Your task to perform on an android device: turn off translation in the chrome app Image 0: 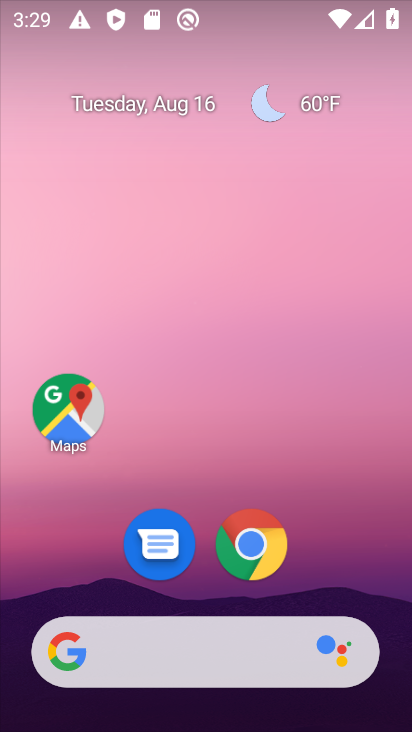
Step 0: drag from (398, 570) to (221, 20)
Your task to perform on an android device: turn off translation in the chrome app Image 1: 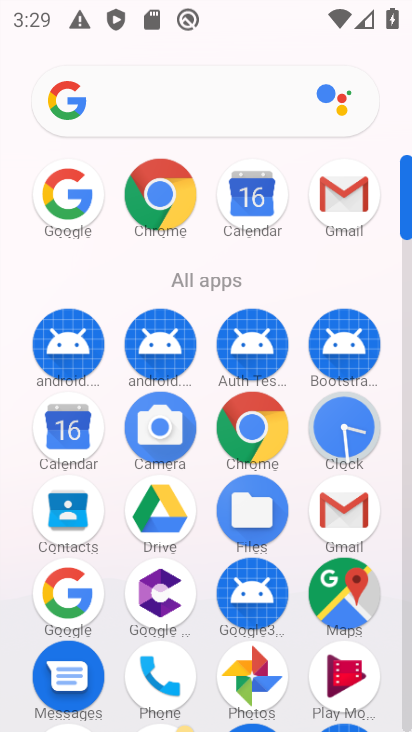
Step 1: click (160, 211)
Your task to perform on an android device: turn off translation in the chrome app Image 2: 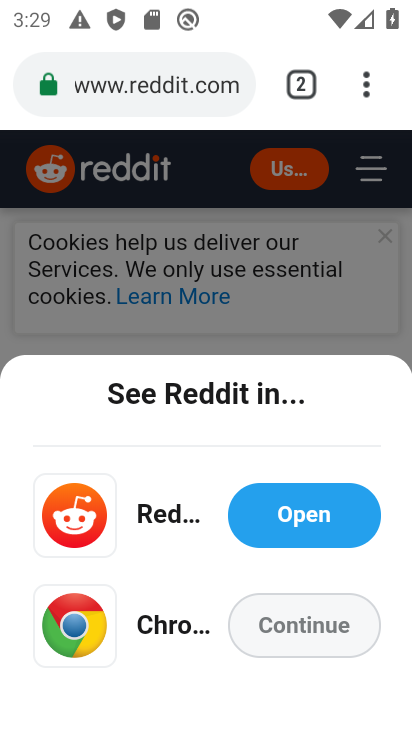
Step 2: click (364, 85)
Your task to perform on an android device: turn off translation in the chrome app Image 3: 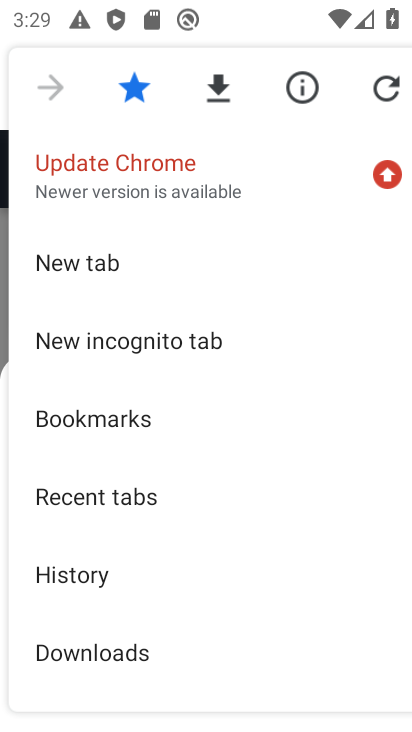
Step 3: drag from (155, 618) to (179, 181)
Your task to perform on an android device: turn off translation in the chrome app Image 4: 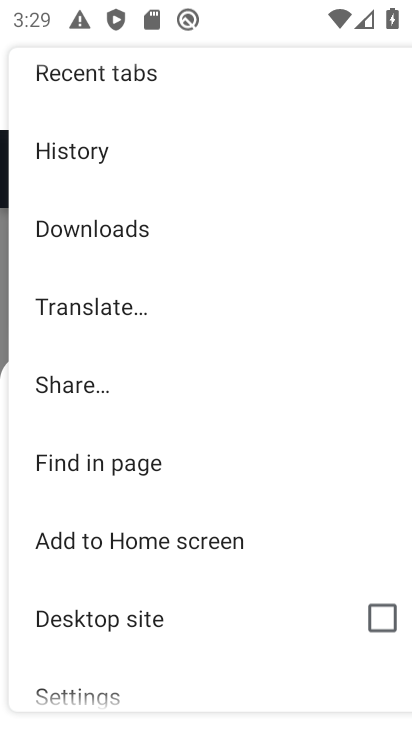
Step 4: drag from (100, 658) to (147, 102)
Your task to perform on an android device: turn off translation in the chrome app Image 5: 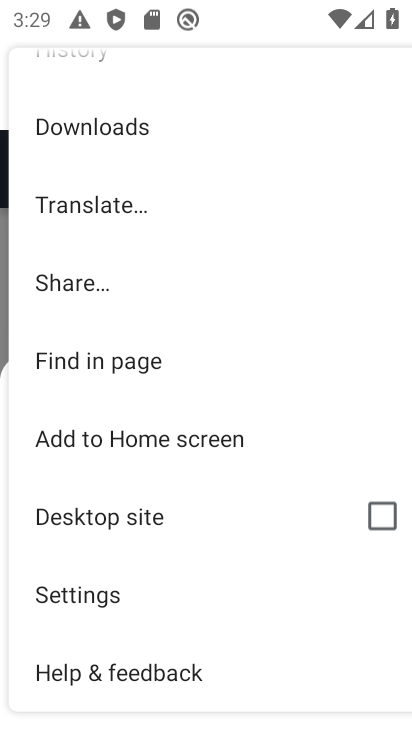
Step 5: click (120, 584)
Your task to perform on an android device: turn off translation in the chrome app Image 6: 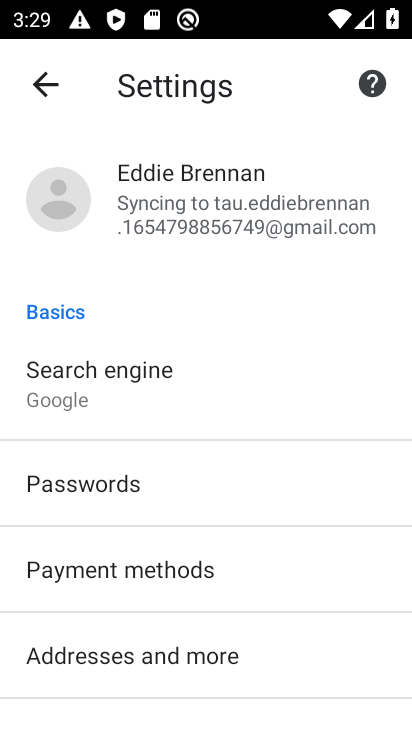
Step 6: drag from (108, 667) to (138, 145)
Your task to perform on an android device: turn off translation in the chrome app Image 7: 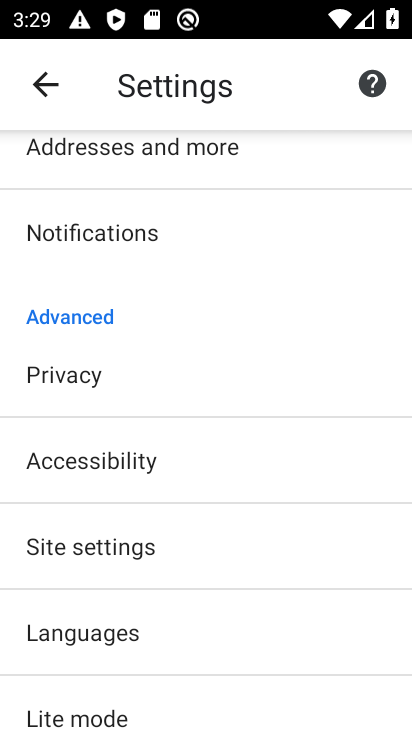
Step 7: click (135, 621)
Your task to perform on an android device: turn off translation in the chrome app Image 8: 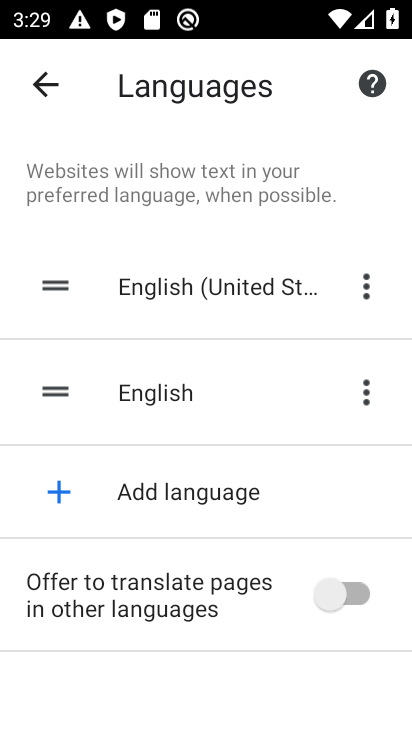
Step 8: task complete